Your task to perform on an android device: Open notification settings Image 0: 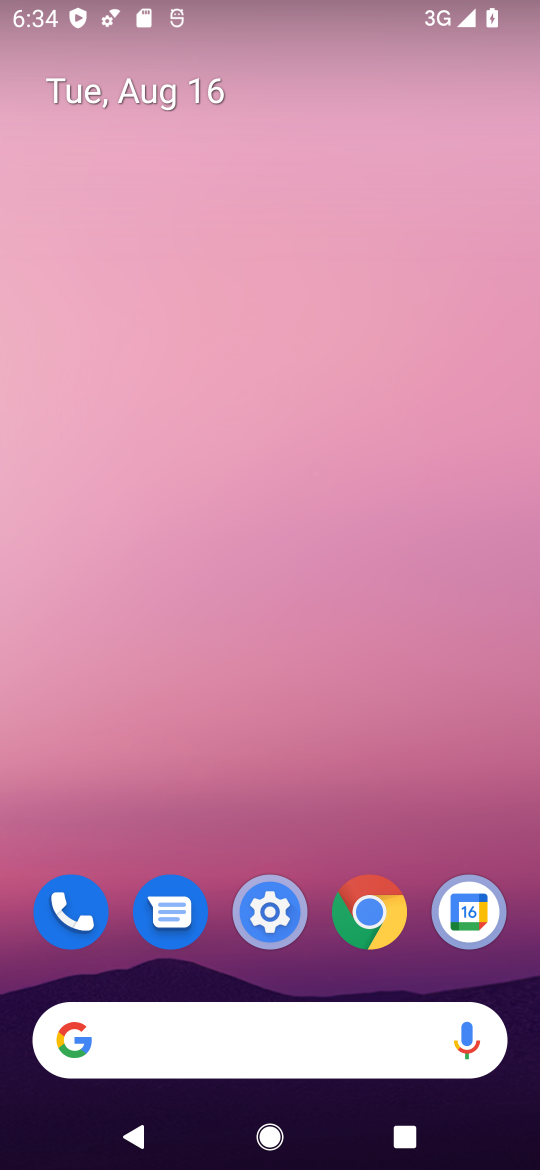
Step 0: click (273, 911)
Your task to perform on an android device: Open notification settings Image 1: 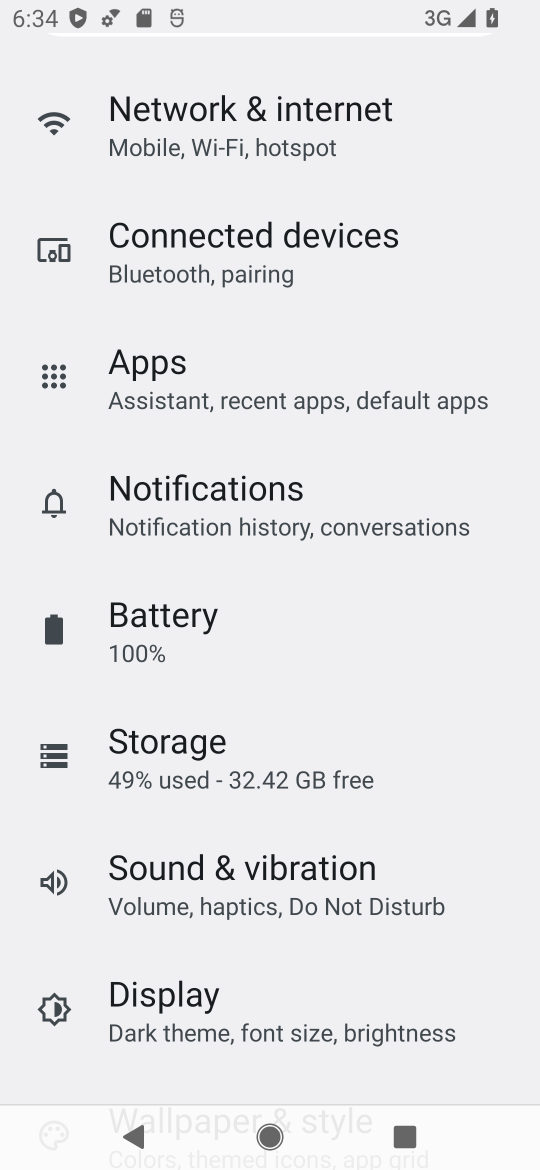
Step 1: click (206, 499)
Your task to perform on an android device: Open notification settings Image 2: 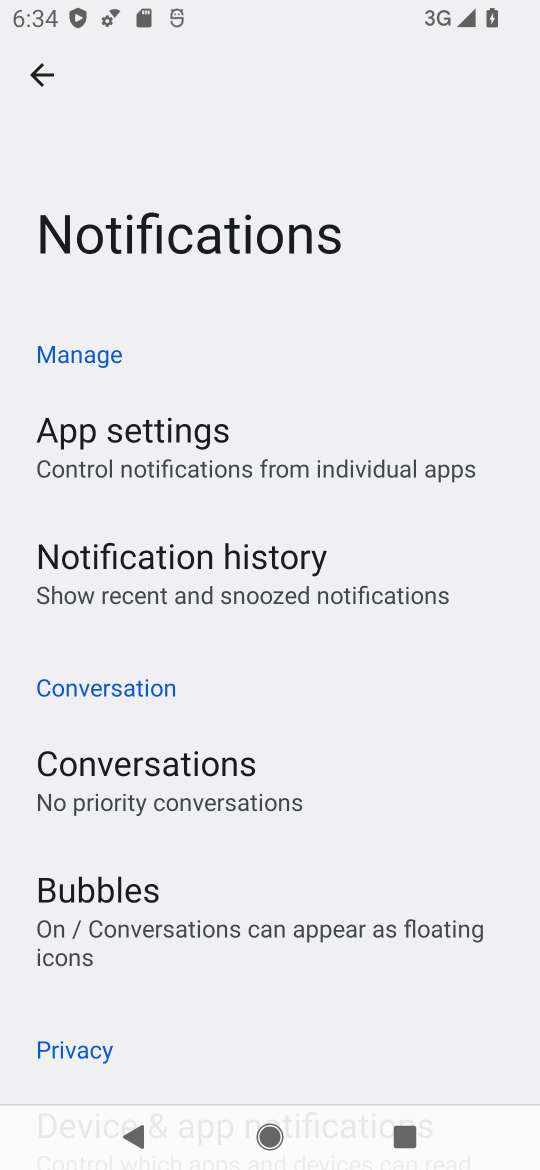
Step 2: task complete